Your task to perform on an android device: refresh tabs in the chrome app Image 0: 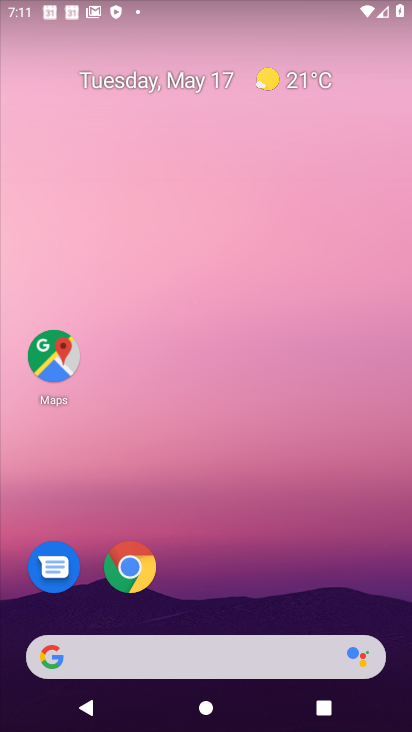
Step 0: click (131, 568)
Your task to perform on an android device: refresh tabs in the chrome app Image 1: 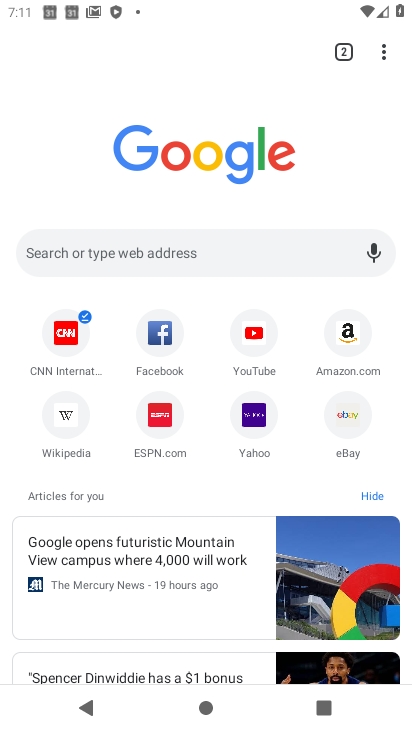
Step 1: click (380, 48)
Your task to perform on an android device: refresh tabs in the chrome app Image 2: 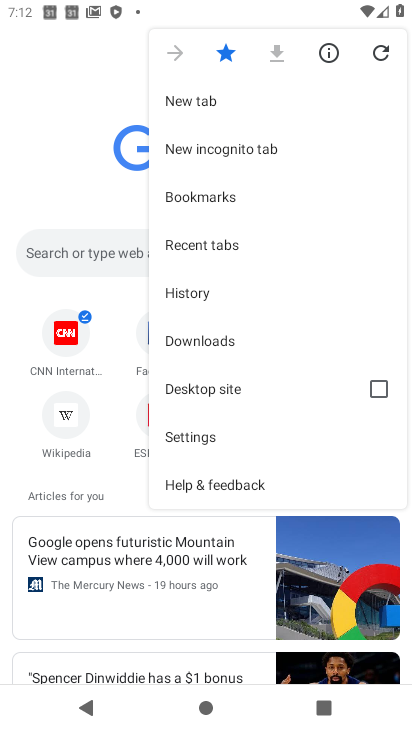
Step 2: click (376, 49)
Your task to perform on an android device: refresh tabs in the chrome app Image 3: 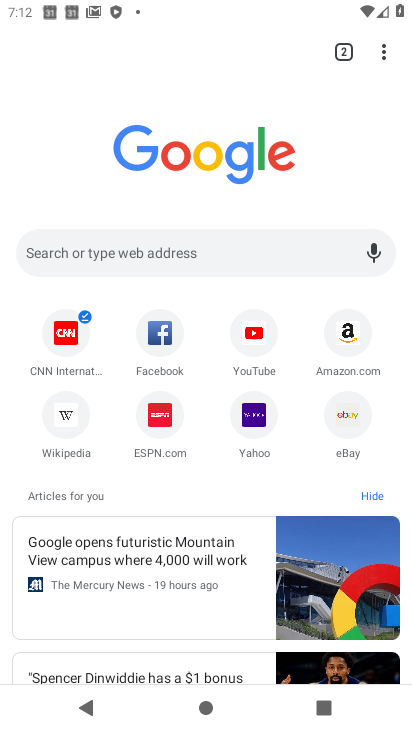
Step 3: task complete